Your task to perform on an android device: Go to Yahoo.com Image 0: 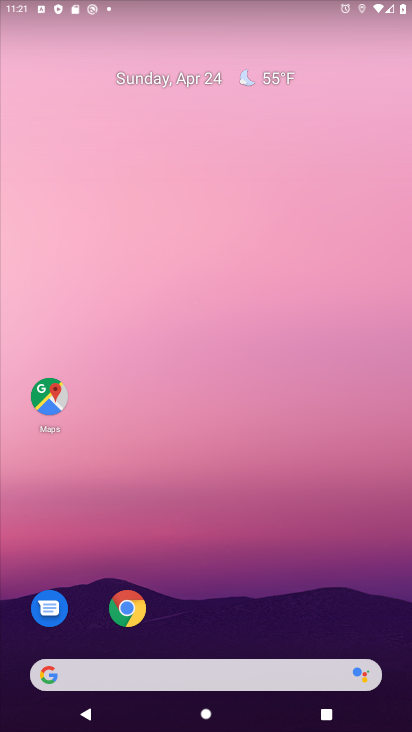
Step 0: click (126, 608)
Your task to perform on an android device: Go to Yahoo.com Image 1: 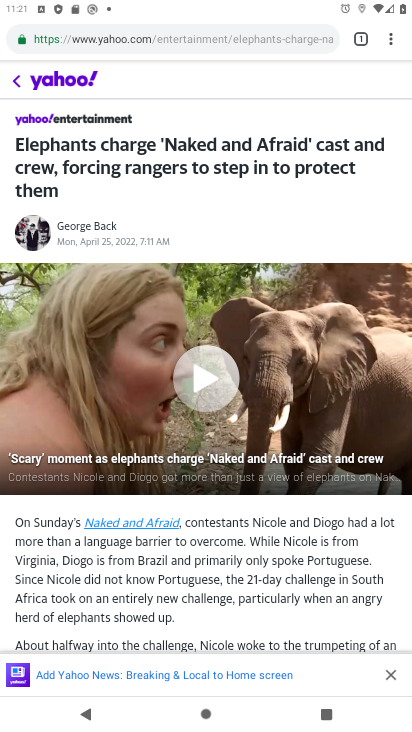
Step 1: task complete